Your task to perform on an android device: Go to display settings Image 0: 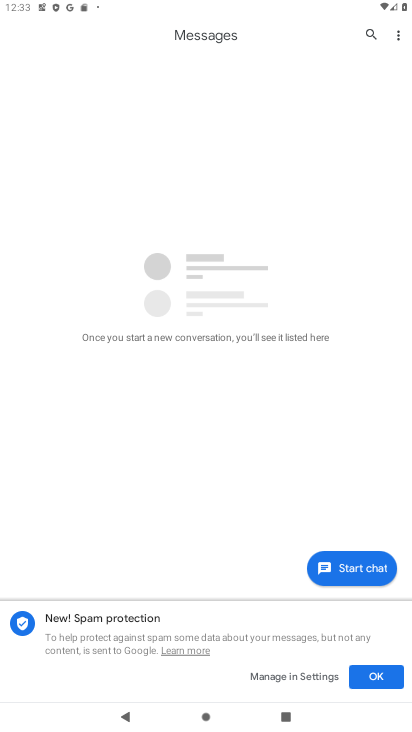
Step 0: press home button
Your task to perform on an android device: Go to display settings Image 1: 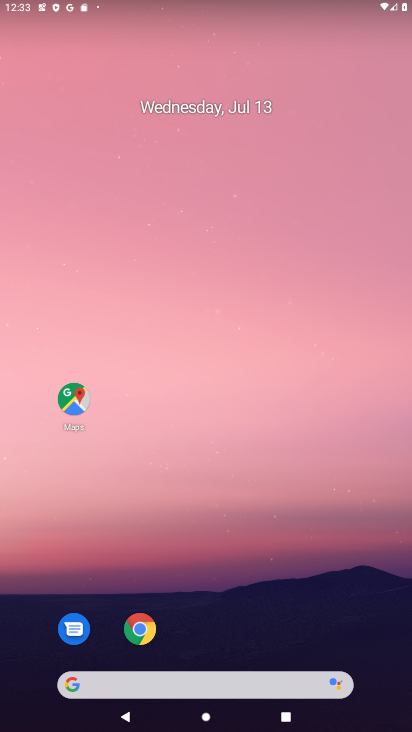
Step 1: drag from (191, 674) to (218, 289)
Your task to perform on an android device: Go to display settings Image 2: 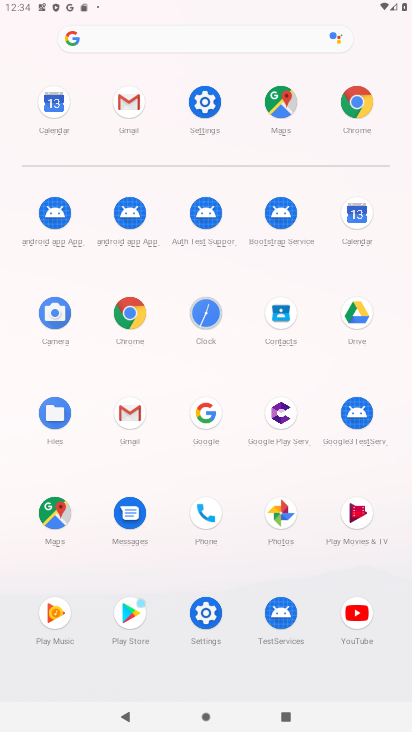
Step 2: click (193, 88)
Your task to perform on an android device: Go to display settings Image 3: 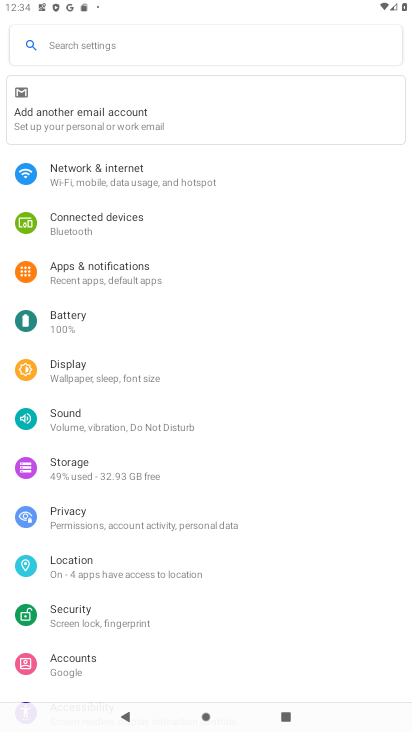
Step 3: click (86, 372)
Your task to perform on an android device: Go to display settings Image 4: 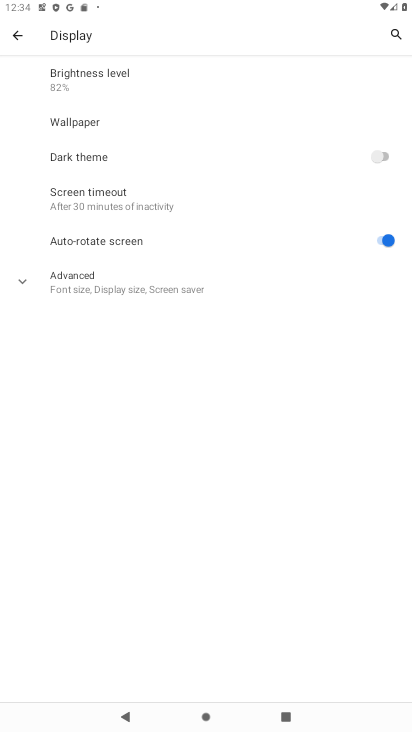
Step 4: task complete